Your task to perform on an android device: Show me popular games on the Play Store Image 0: 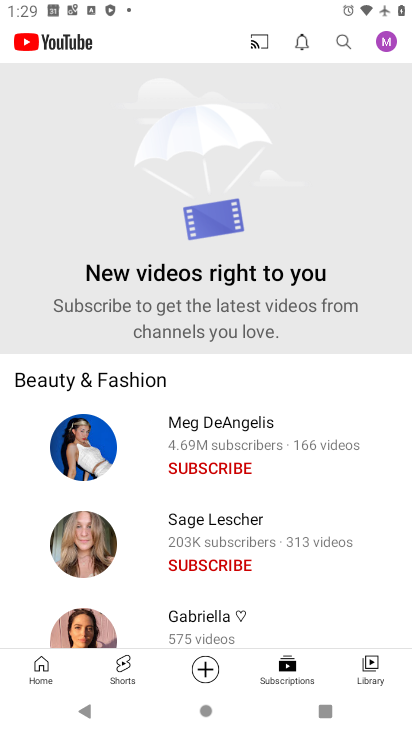
Step 0: press home button
Your task to perform on an android device: Show me popular games on the Play Store Image 1: 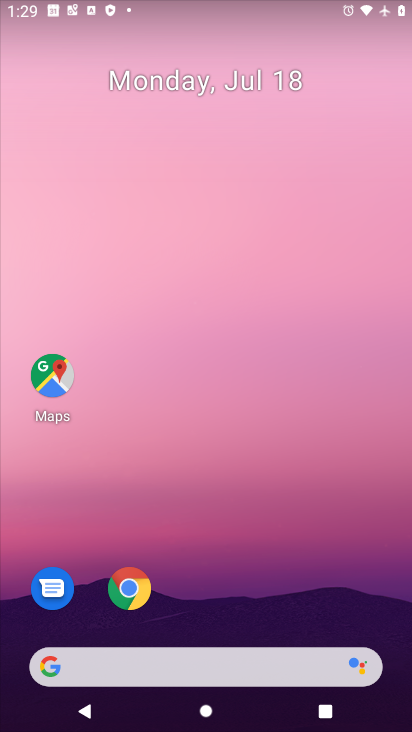
Step 1: drag from (261, 654) to (274, 245)
Your task to perform on an android device: Show me popular games on the Play Store Image 2: 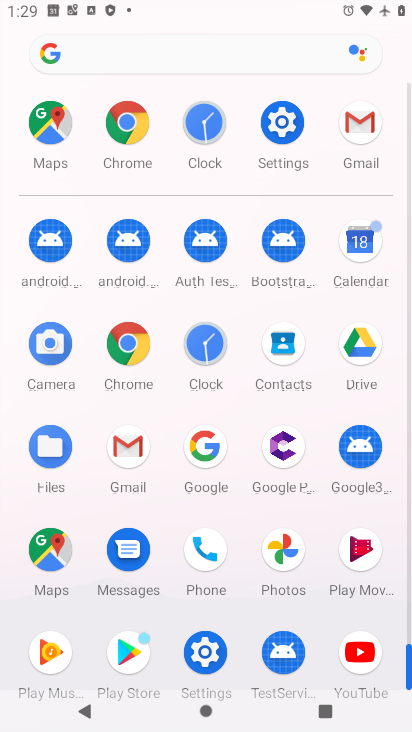
Step 2: click (137, 651)
Your task to perform on an android device: Show me popular games on the Play Store Image 3: 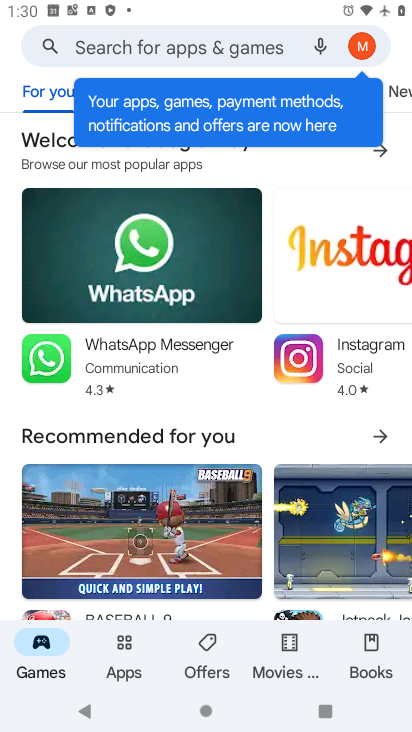
Step 3: task complete